Your task to perform on an android device: open a new tab in the chrome app Image 0: 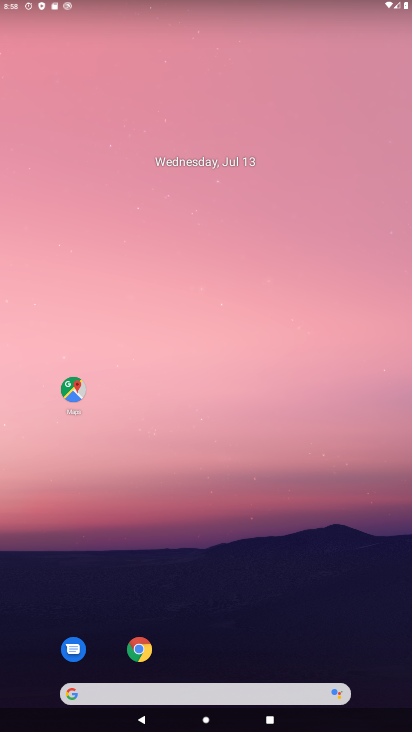
Step 0: drag from (266, 661) to (325, 0)
Your task to perform on an android device: open a new tab in the chrome app Image 1: 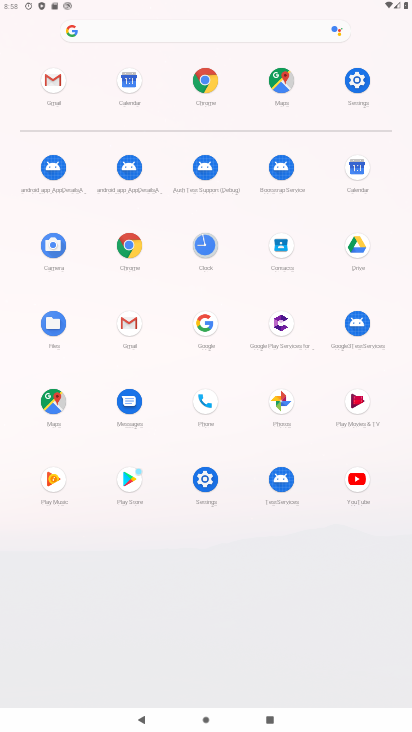
Step 1: click (135, 245)
Your task to perform on an android device: open a new tab in the chrome app Image 2: 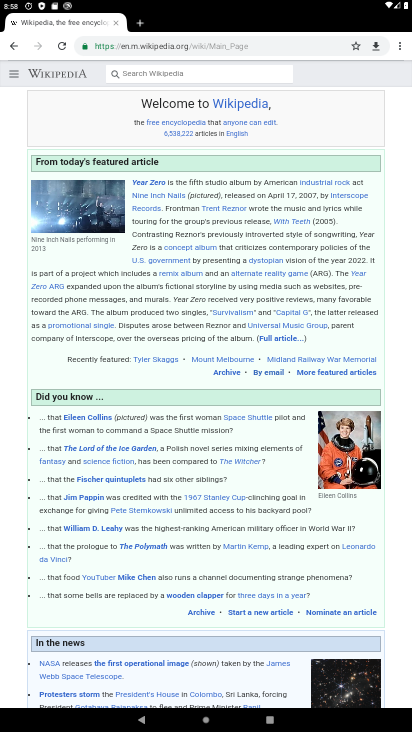
Step 2: task complete